Your task to perform on an android device: turn on improve location accuracy Image 0: 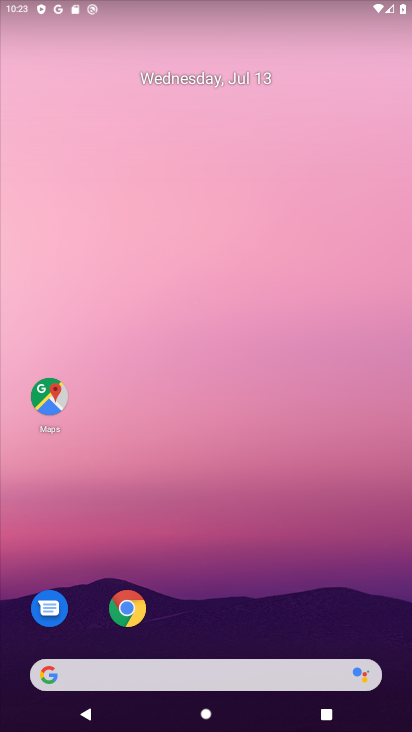
Step 0: drag from (252, 633) to (249, 88)
Your task to perform on an android device: turn on improve location accuracy Image 1: 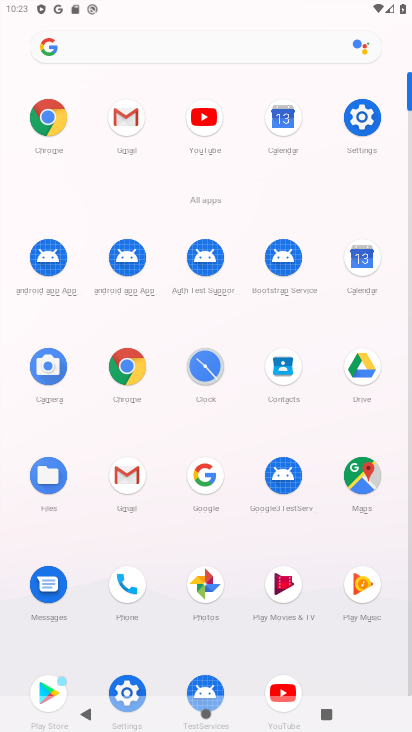
Step 1: click (363, 124)
Your task to perform on an android device: turn on improve location accuracy Image 2: 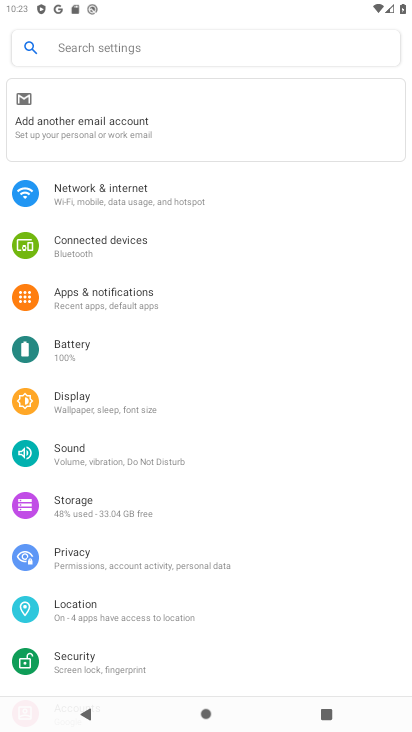
Step 2: click (103, 604)
Your task to perform on an android device: turn on improve location accuracy Image 3: 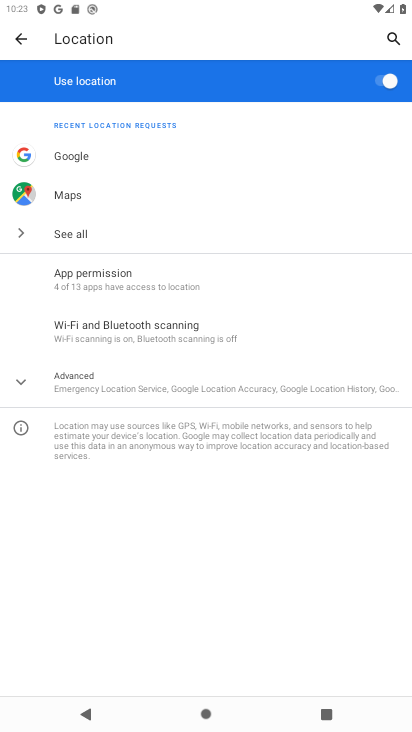
Step 3: click (127, 378)
Your task to perform on an android device: turn on improve location accuracy Image 4: 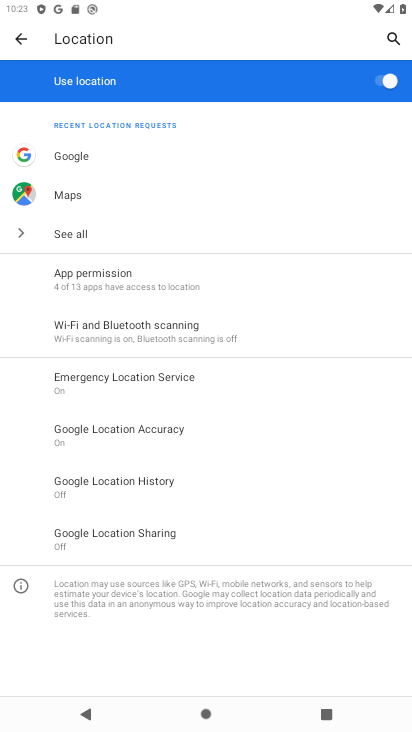
Step 4: click (146, 438)
Your task to perform on an android device: turn on improve location accuracy Image 5: 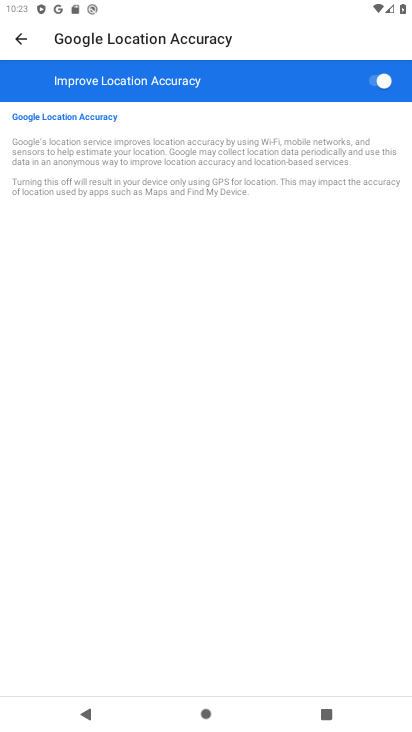
Step 5: task complete